Your task to perform on an android device: Is it going to rain tomorrow? Image 0: 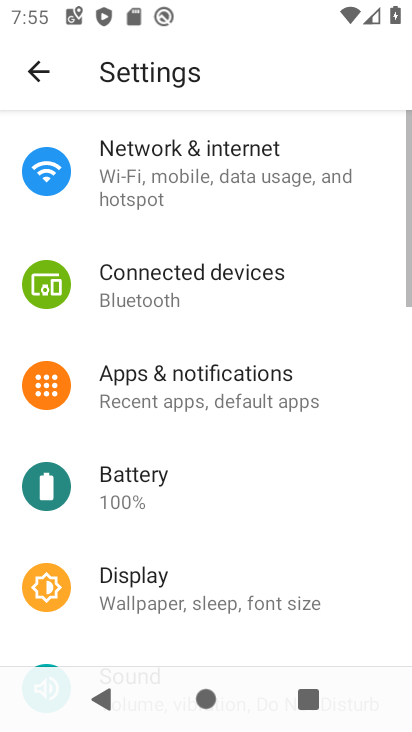
Step 0: press home button
Your task to perform on an android device: Is it going to rain tomorrow? Image 1: 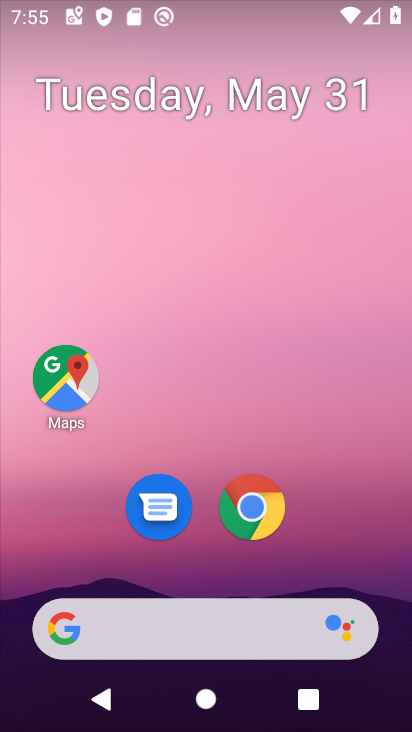
Step 1: click (253, 510)
Your task to perform on an android device: Is it going to rain tomorrow? Image 2: 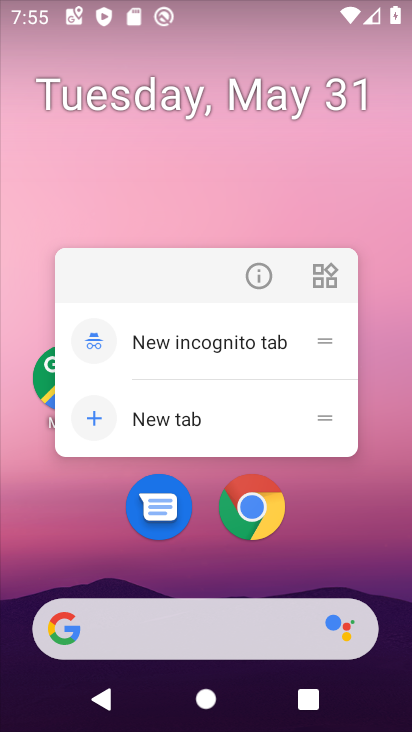
Step 2: click (256, 506)
Your task to perform on an android device: Is it going to rain tomorrow? Image 3: 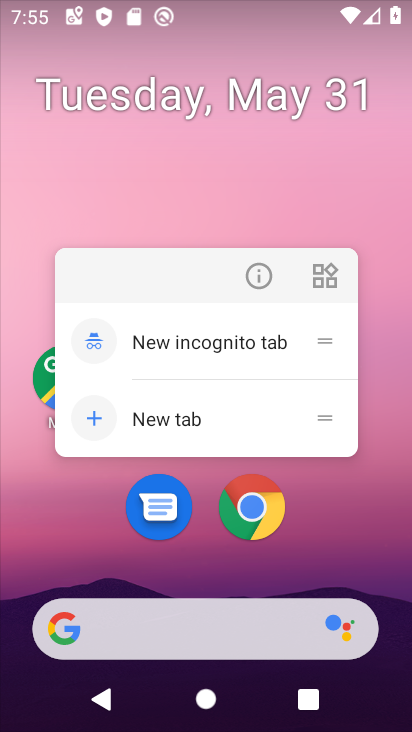
Step 3: click (312, 550)
Your task to perform on an android device: Is it going to rain tomorrow? Image 4: 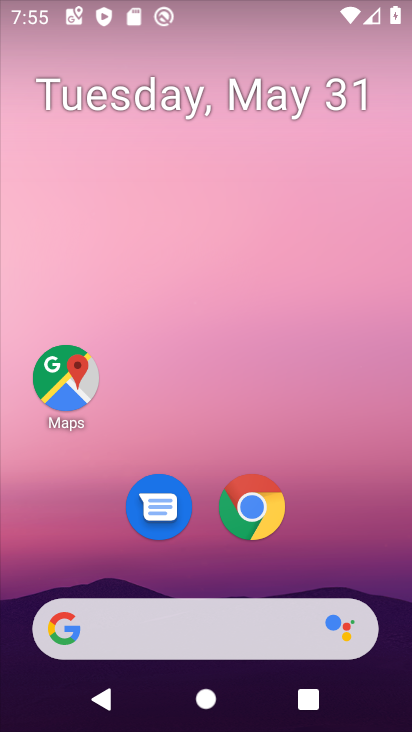
Step 4: drag from (339, 579) to (327, 203)
Your task to perform on an android device: Is it going to rain tomorrow? Image 5: 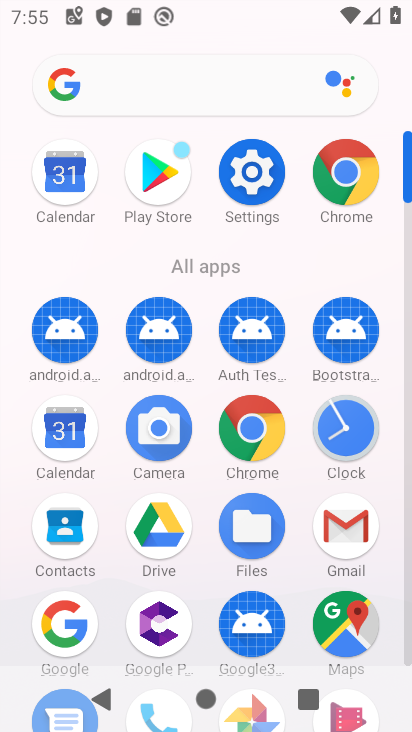
Step 5: click (254, 427)
Your task to perform on an android device: Is it going to rain tomorrow? Image 6: 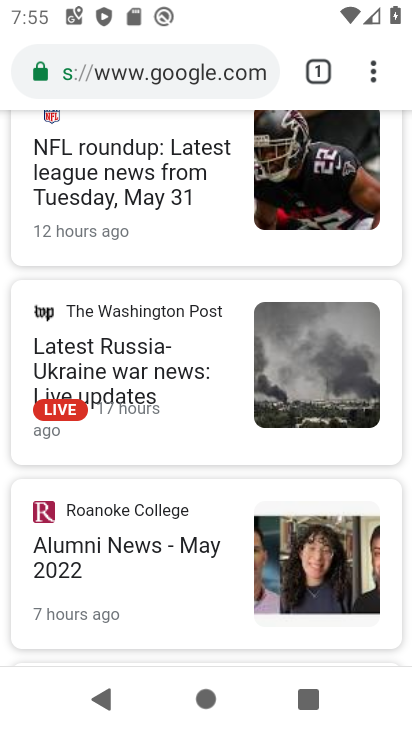
Step 6: click (207, 60)
Your task to perform on an android device: Is it going to rain tomorrow? Image 7: 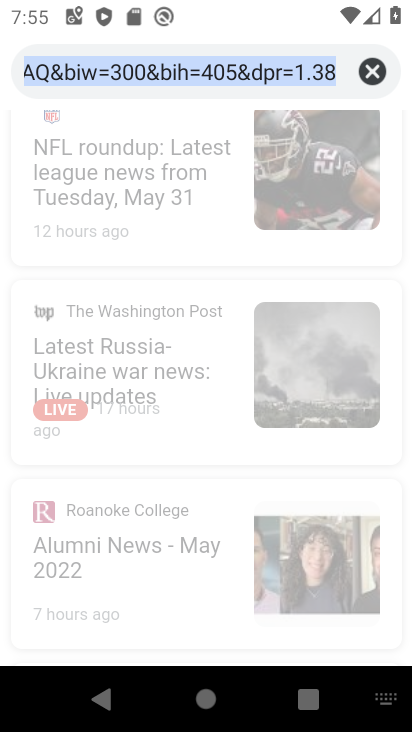
Step 7: type "weather"
Your task to perform on an android device: Is it going to rain tomorrow? Image 8: 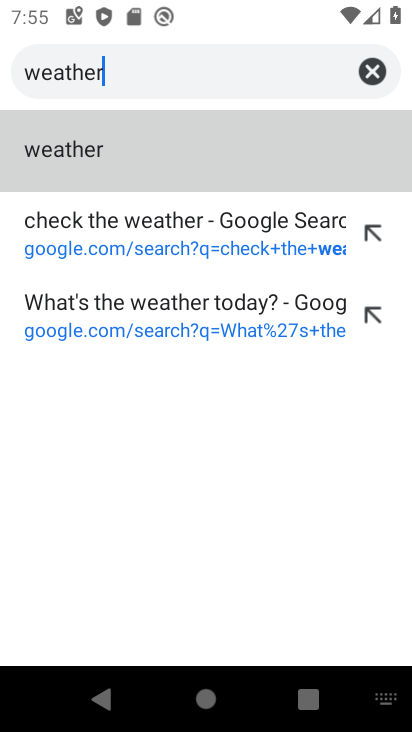
Step 8: click (98, 145)
Your task to perform on an android device: Is it going to rain tomorrow? Image 9: 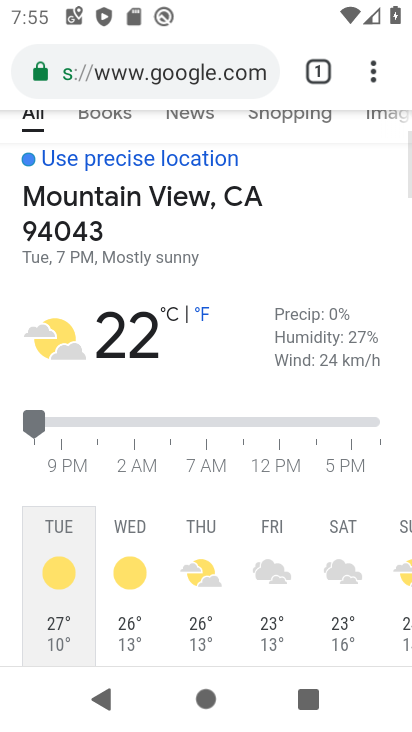
Step 9: drag from (265, 508) to (259, 193)
Your task to perform on an android device: Is it going to rain tomorrow? Image 10: 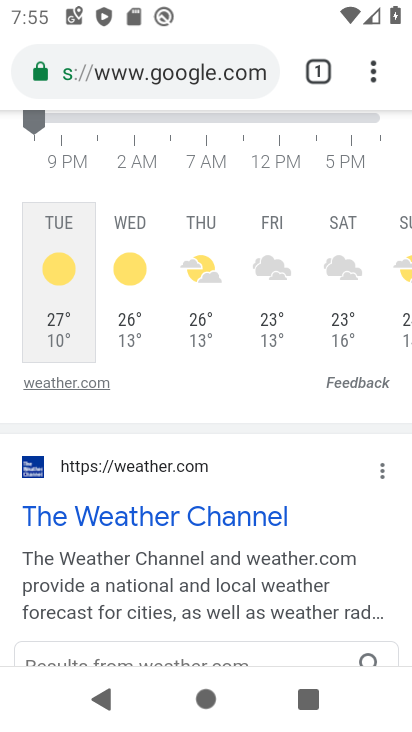
Step 10: click (131, 274)
Your task to perform on an android device: Is it going to rain tomorrow? Image 11: 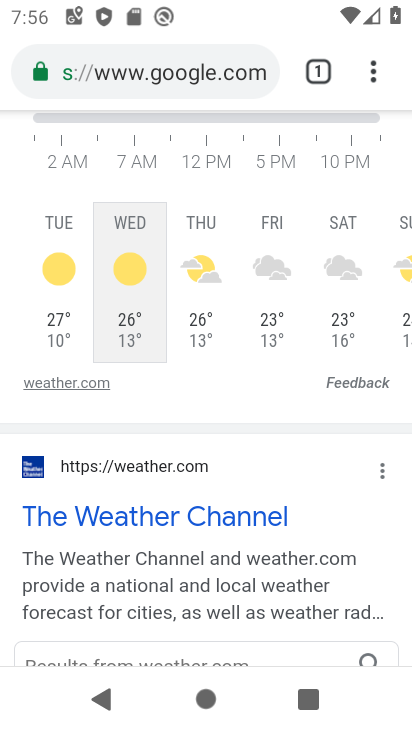
Step 11: task complete